Your task to perform on an android device: find photos in the google photos app Image 0: 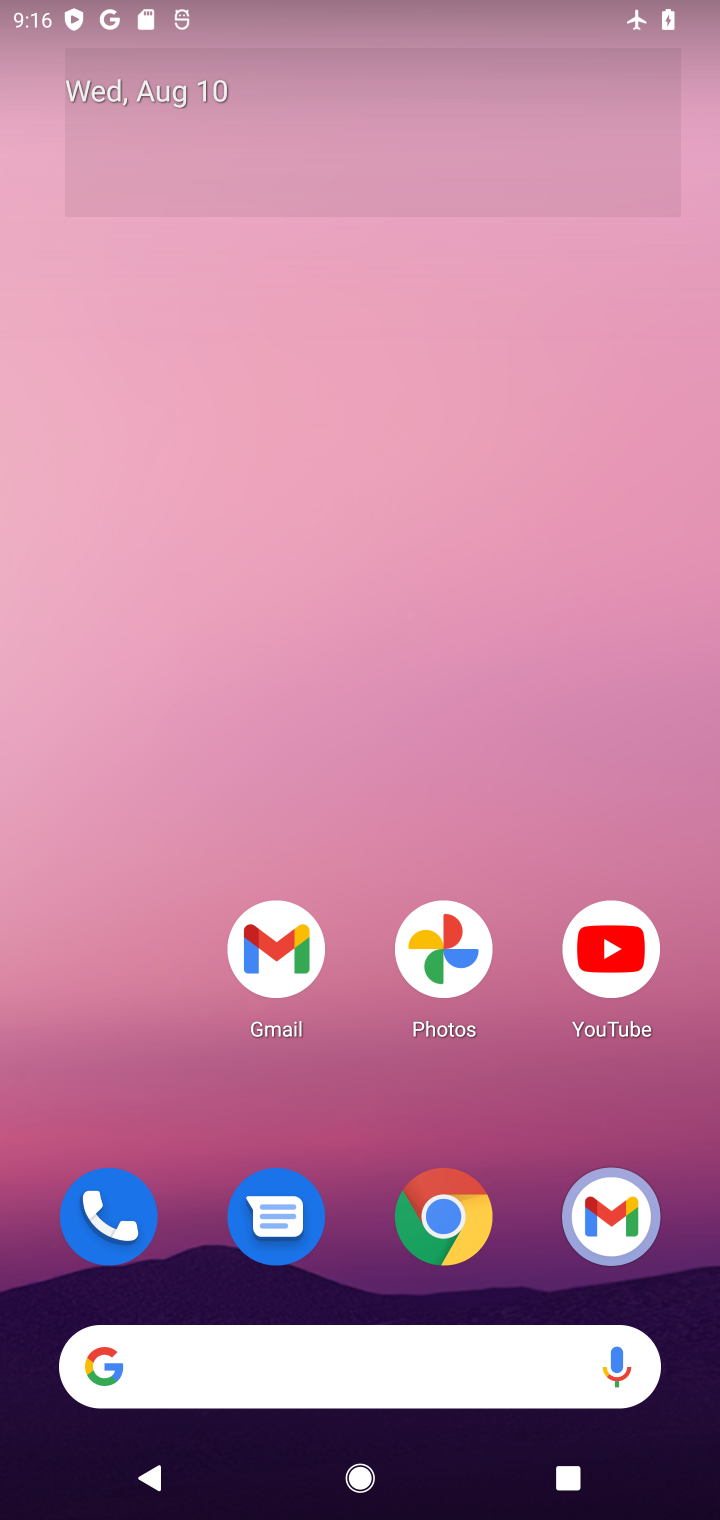
Step 0: drag from (40, 1233) to (515, 249)
Your task to perform on an android device: find photos in the google photos app Image 1: 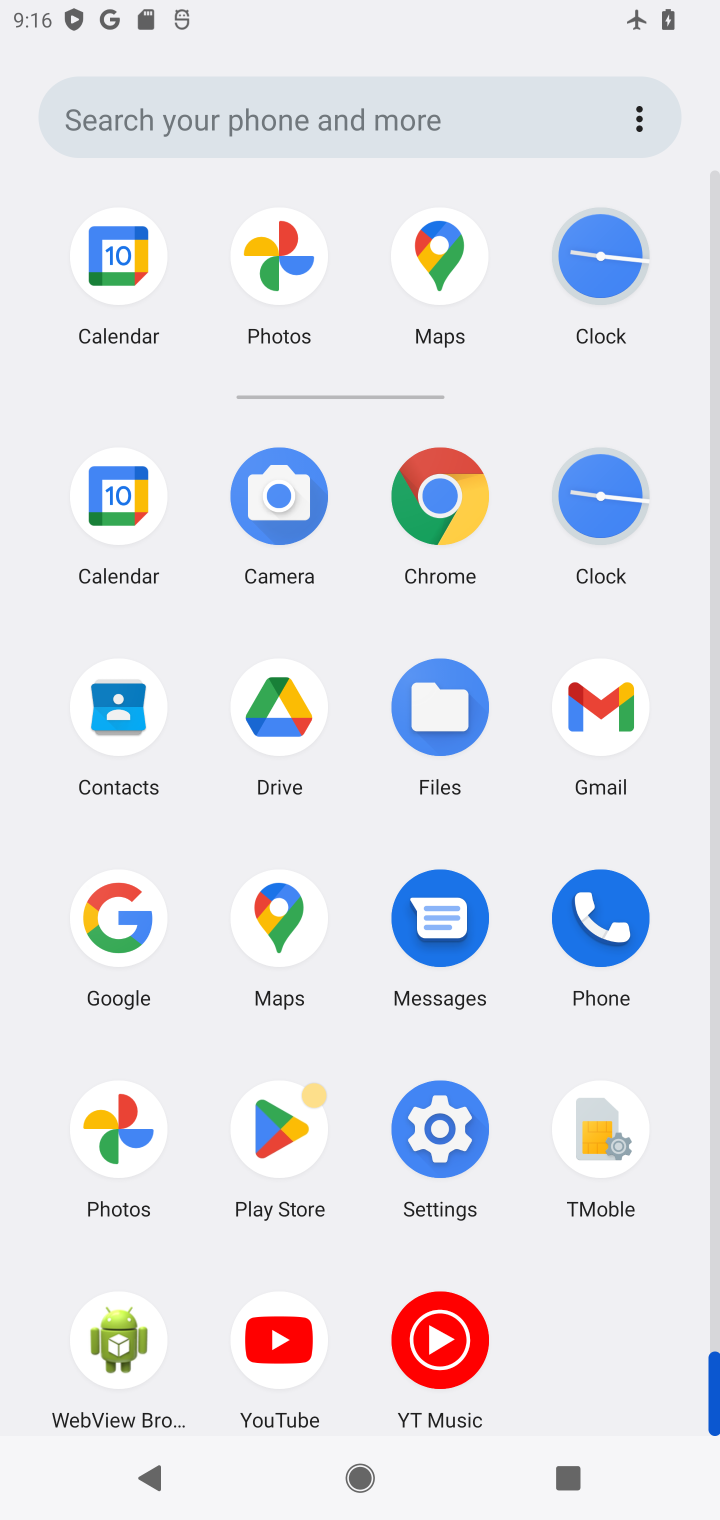
Step 1: click (84, 1123)
Your task to perform on an android device: find photos in the google photos app Image 2: 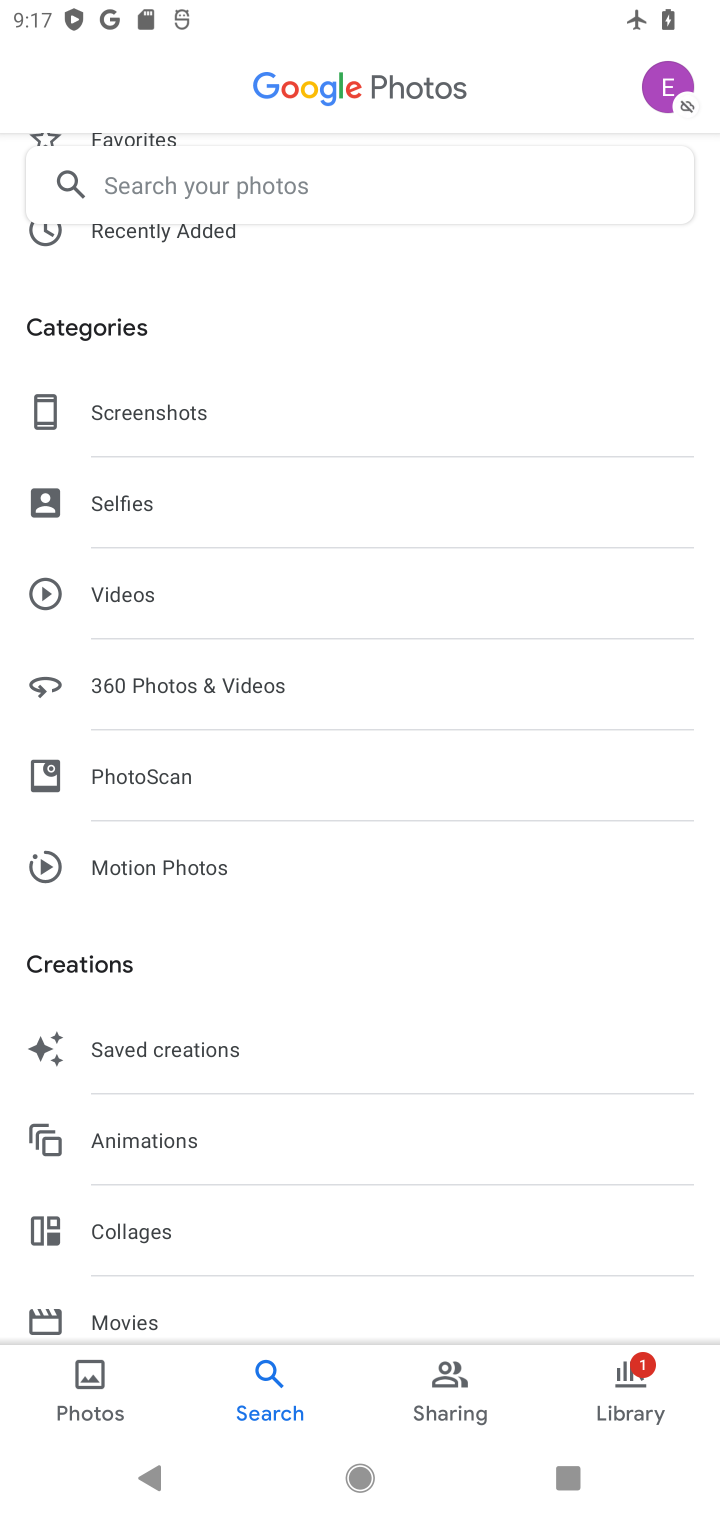
Step 2: task complete